Your task to perform on an android device: open app "Indeed Job Search" (install if not already installed), go to login, and select forgot password Image 0: 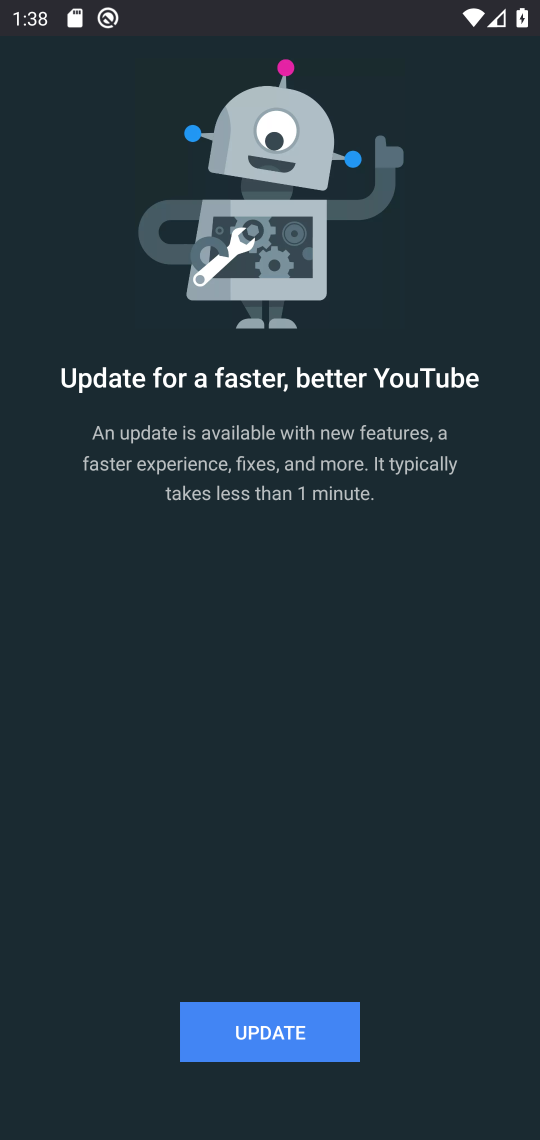
Step 0: press home button
Your task to perform on an android device: open app "Indeed Job Search" (install if not already installed), go to login, and select forgot password Image 1: 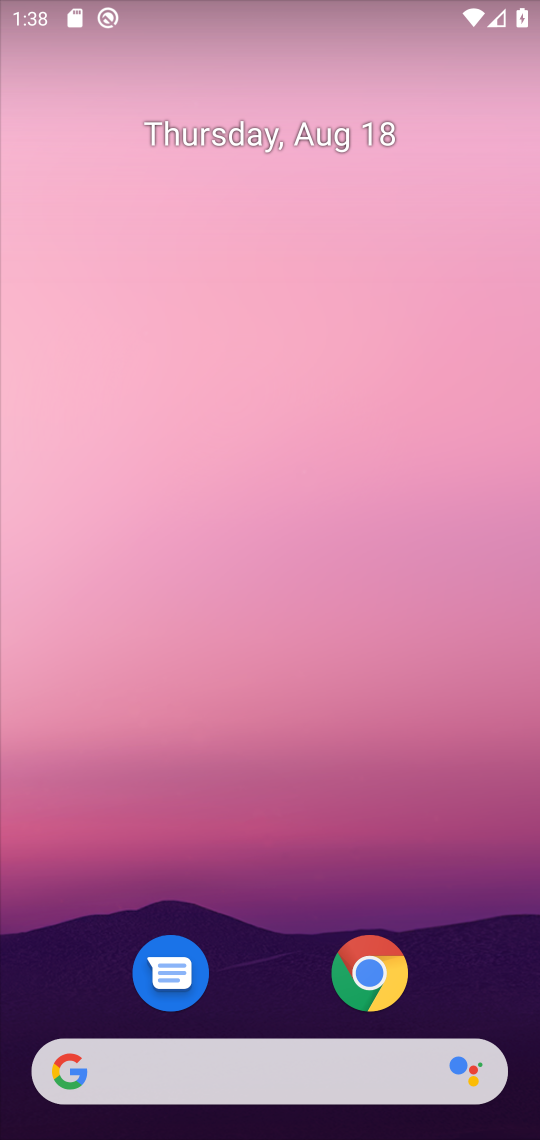
Step 1: drag from (315, 979) to (303, 274)
Your task to perform on an android device: open app "Indeed Job Search" (install if not already installed), go to login, and select forgot password Image 2: 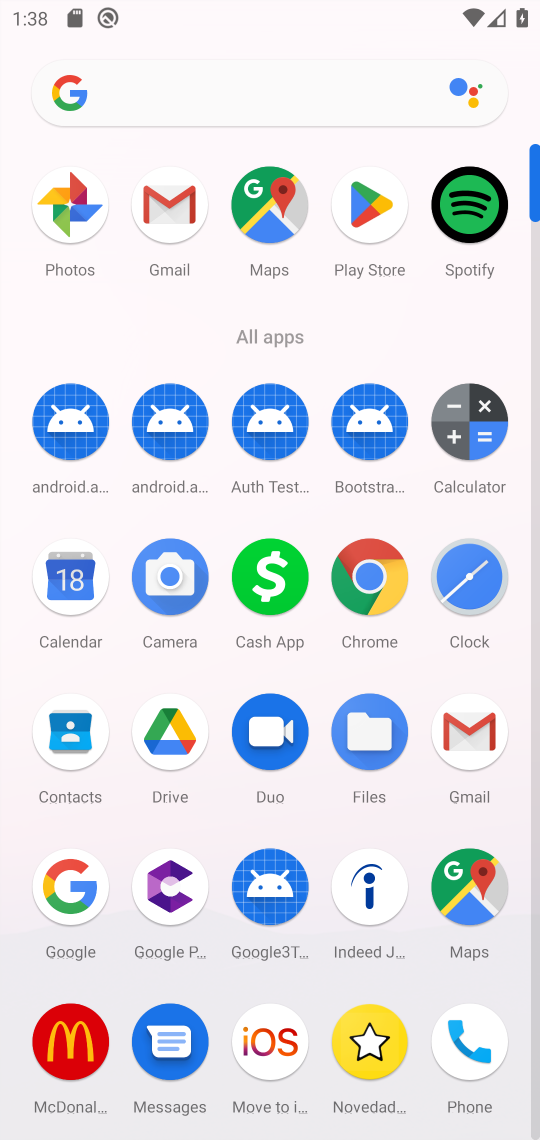
Step 2: click (352, 253)
Your task to perform on an android device: open app "Indeed Job Search" (install if not already installed), go to login, and select forgot password Image 3: 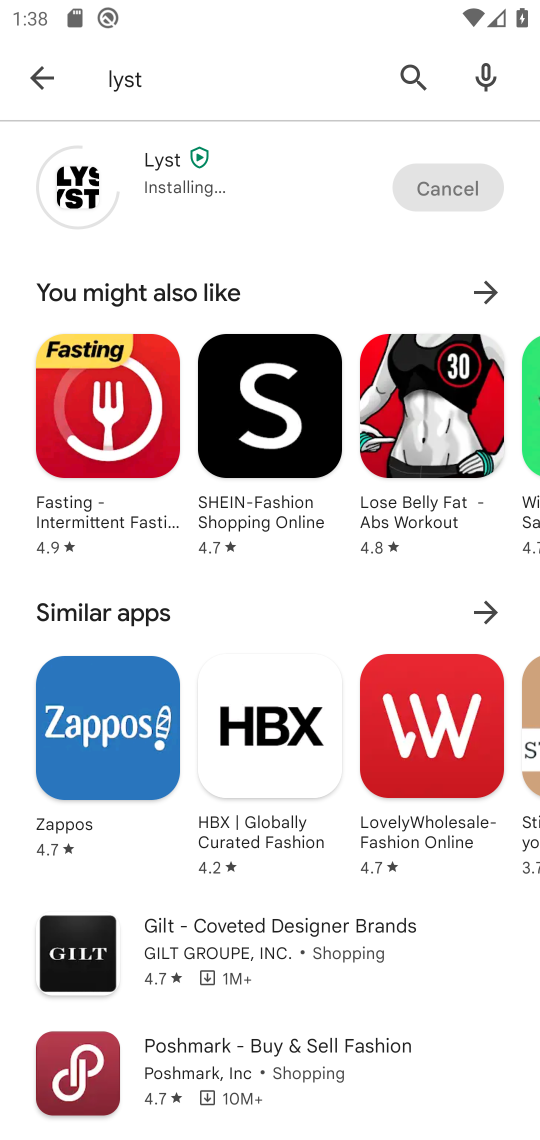
Step 3: click (408, 101)
Your task to perform on an android device: open app "Indeed Job Search" (install if not already installed), go to login, and select forgot password Image 4: 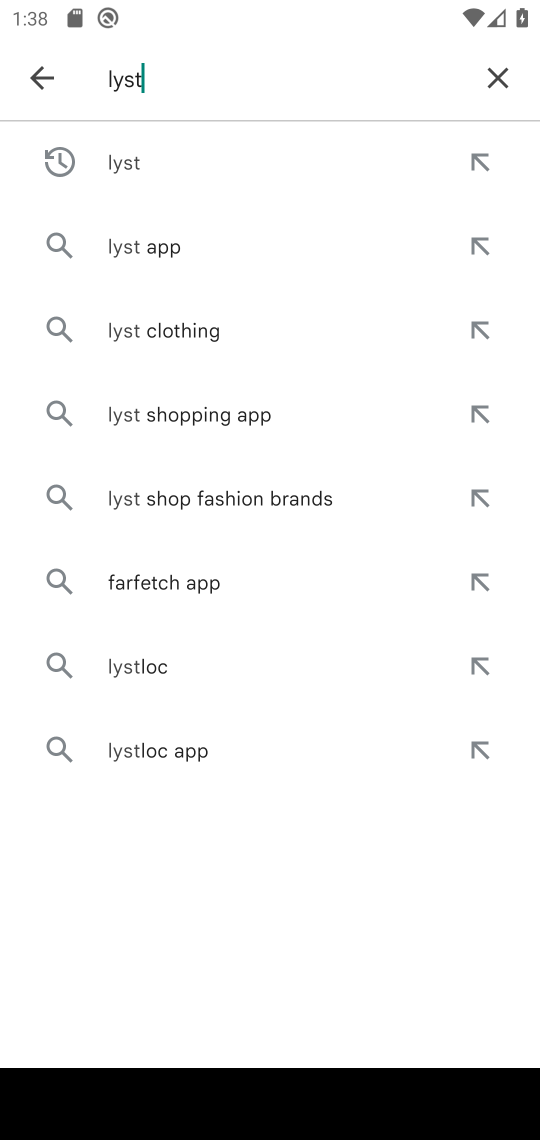
Step 4: click (488, 72)
Your task to perform on an android device: open app "Indeed Job Search" (install if not already installed), go to login, and select forgot password Image 5: 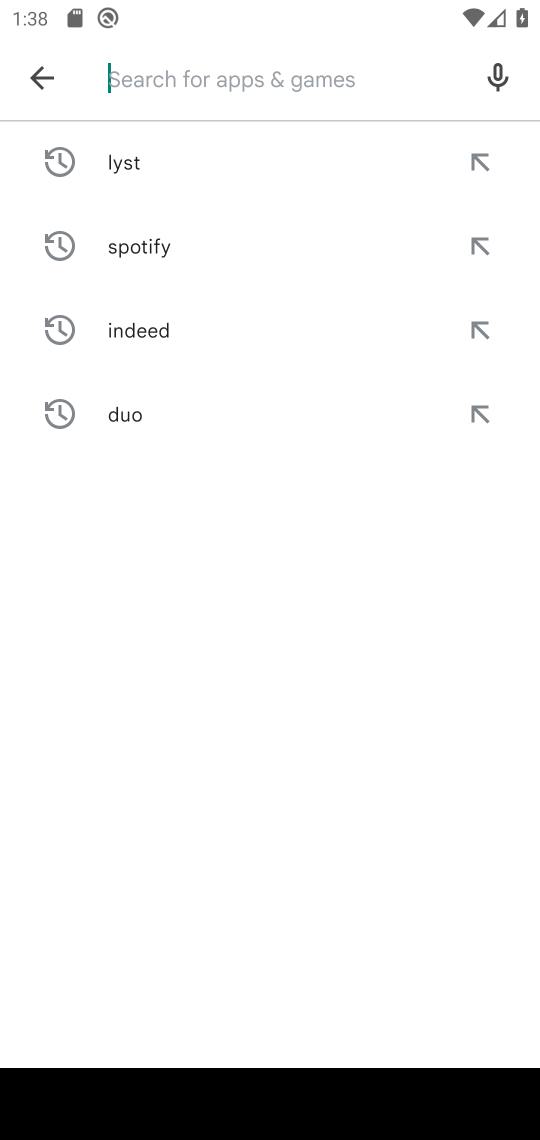
Step 5: type "indeed"
Your task to perform on an android device: open app "Indeed Job Search" (install if not already installed), go to login, and select forgot password Image 6: 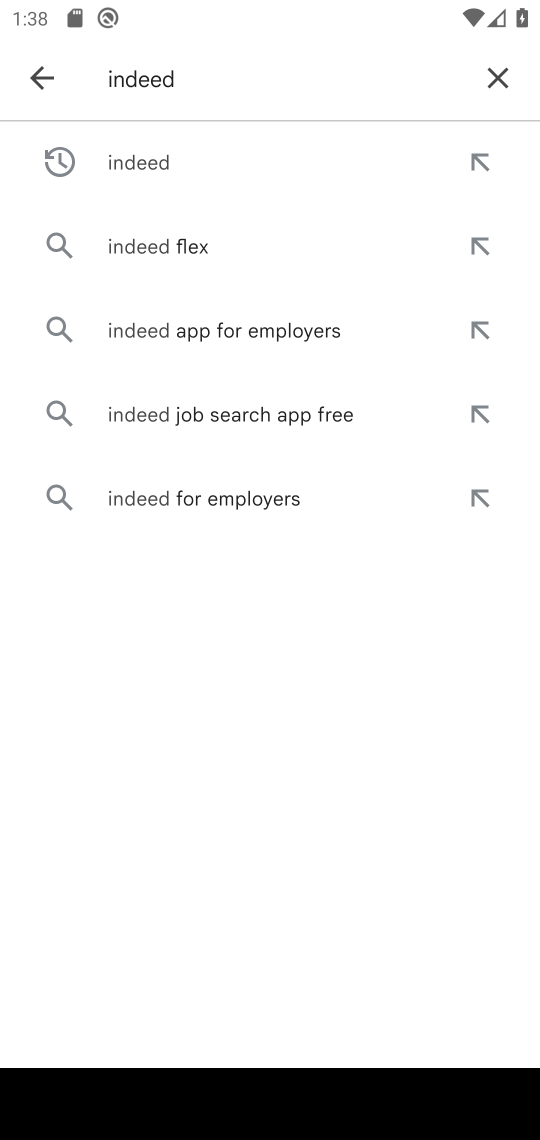
Step 6: click (269, 180)
Your task to perform on an android device: open app "Indeed Job Search" (install if not already installed), go to login, and select forgot password Image 7: 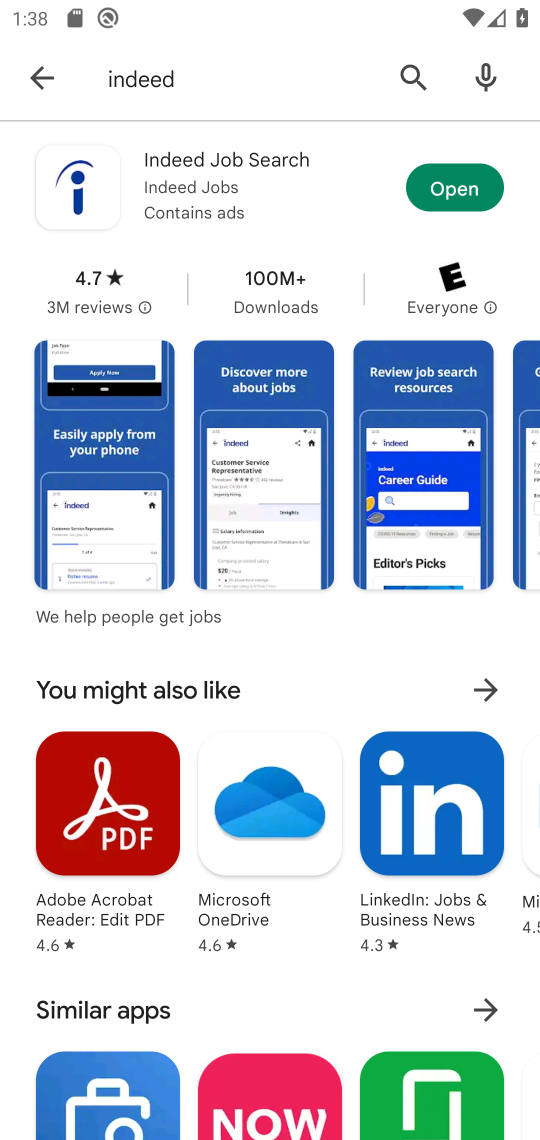
Step 7: click (489, 180)
Your task to perform on an android device: open app "Indeed Job Search" (install if not already installed), go to login, and select forgot password Image 8: 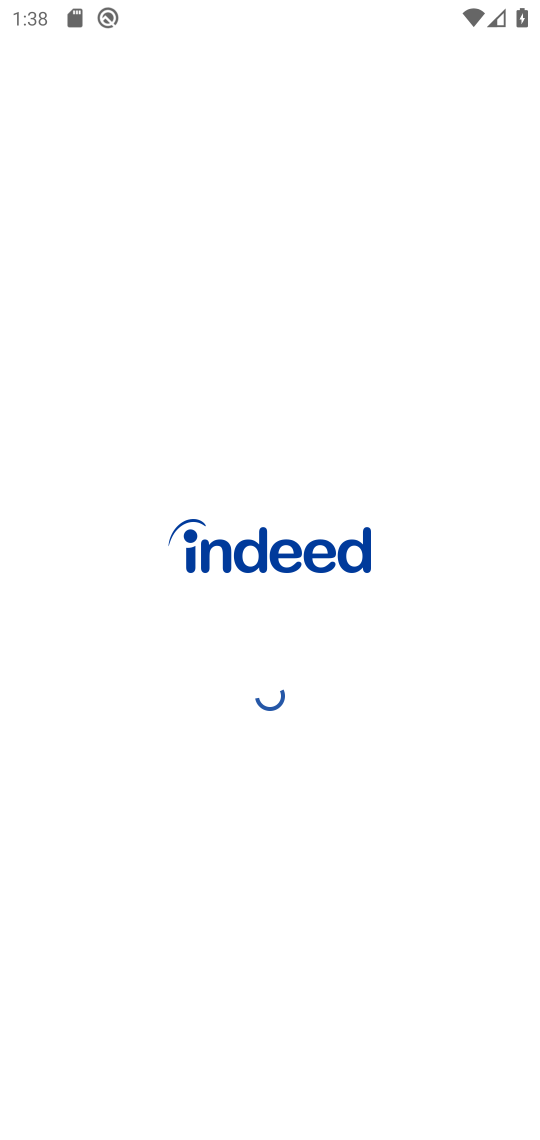
Step 8: task complete